Your task to perform on an android device: toggle notifications settings in the gmail app Image 0: 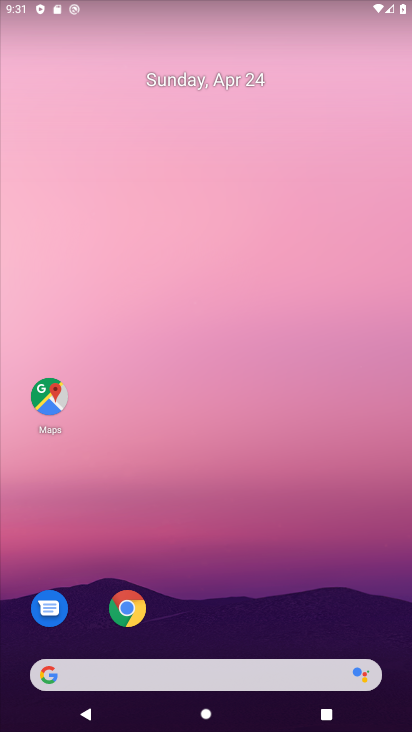
Step 0: drag from (264, 683) to (400, 48)
Your task to perform on an android device: toggle notifications settings in the gmail app Image 1: 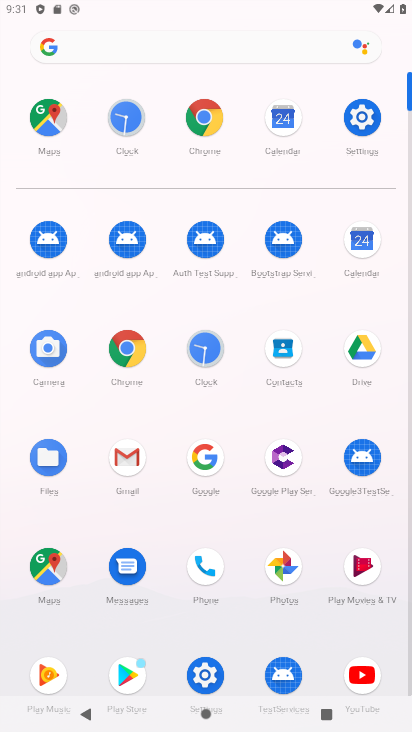
Step 1: click (135, 481)
Your task to perform on an android device: toggle notifications settings in the gmail app Image 2: 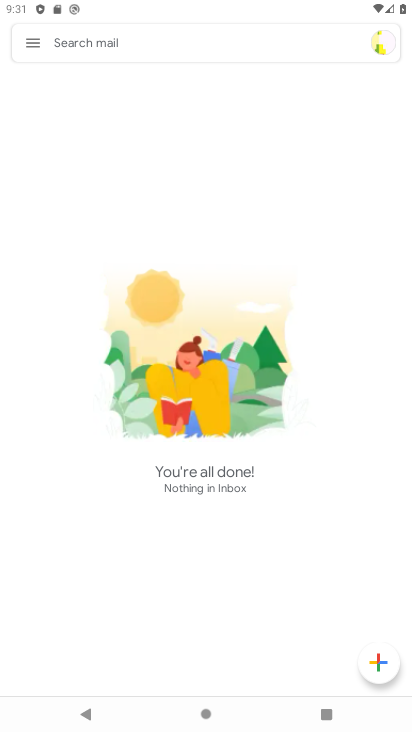
Step 2: click (28, 39)
Your task to perform on an android device: toggle notifications settings in the gmail app Image 3: 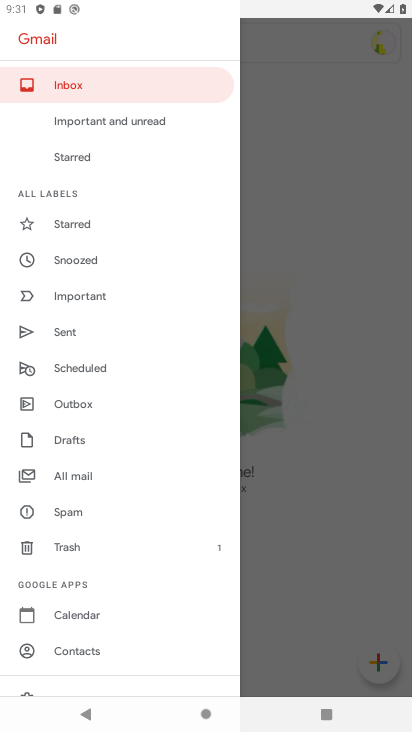
Step 3: click (73, 687)
Your task to perform on an android device: toggle notifications settings in the gmail app Image 4: 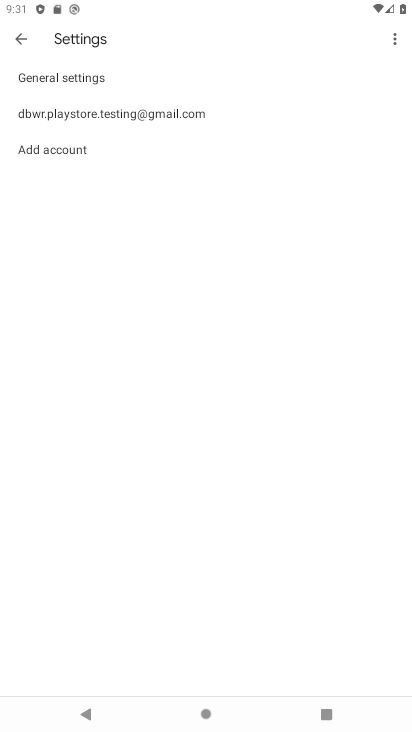
Step 4: click (165, 109)
Your task to perform on an android device: toggle notifications settings in the gmail app Image 5: 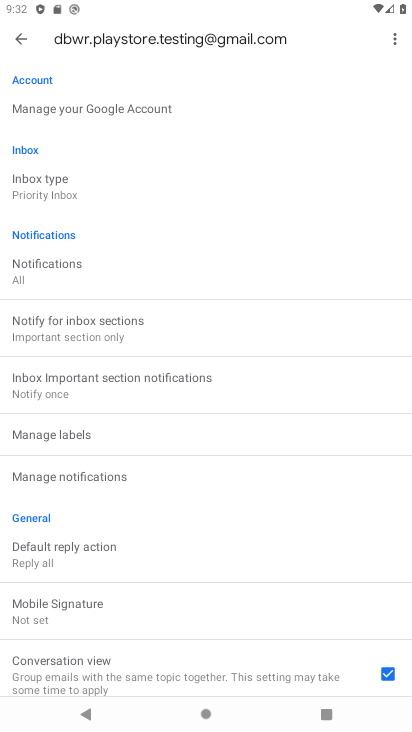
Step 5: click (91, 278)
Your task to perform on an android device: toggle notifications settings in the gmail app Image 6: 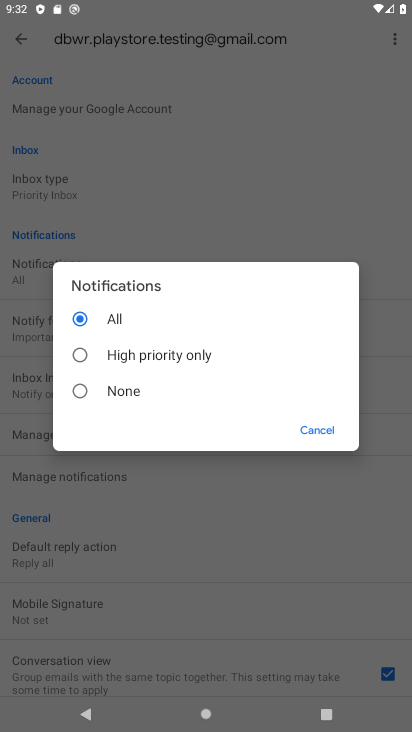
Step 6: task complete